Your task to perform on an android device: Go to wifi settings Image 0: 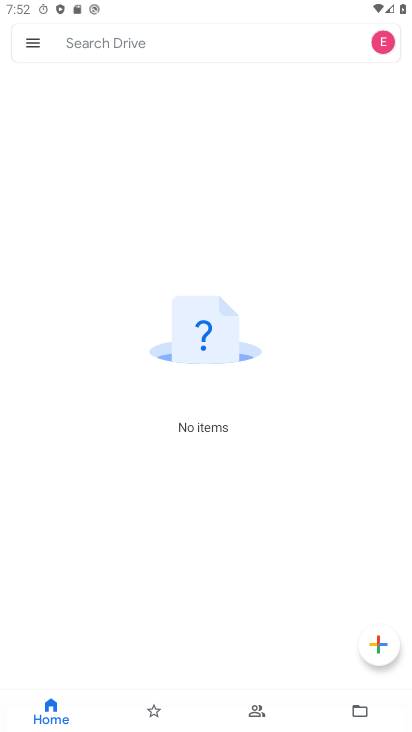
Step 0: press home button
Your task to perform on an android device: Go to wifi settings Image 1: 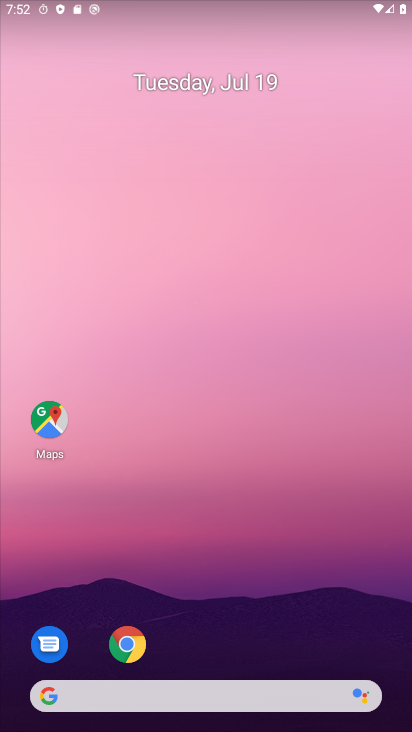
Step 1: drag from (9, 716) to (286, 101)
Your task to perform on an android device: Go to wifi settings Image 2: 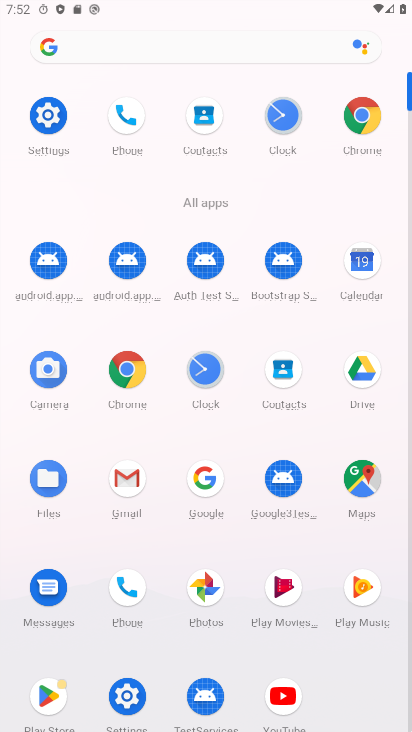
Step 2: click (127, 690)
Your task to perform on an android device: Go to wifi settings Image 3: 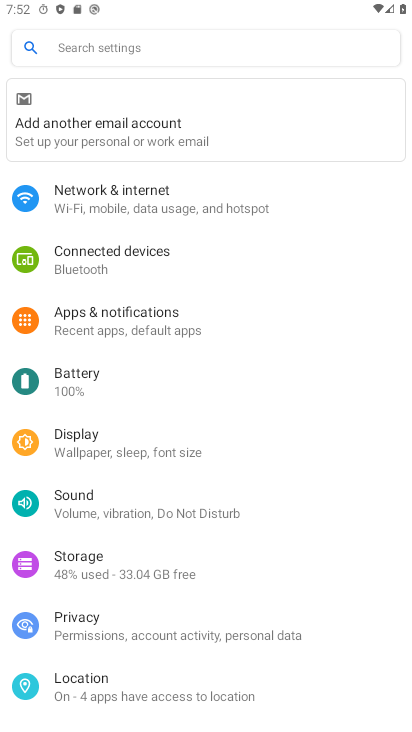
Step 3: click (166, 205)
Your task to perform on an android device: Go to wifi settings Image 4: 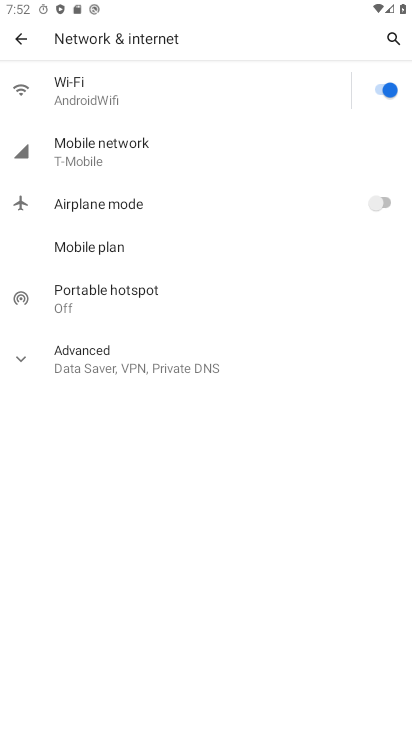
Step 4: task complete